Your task to perform on an android device: toggle pop-ups in chrome Image 0: 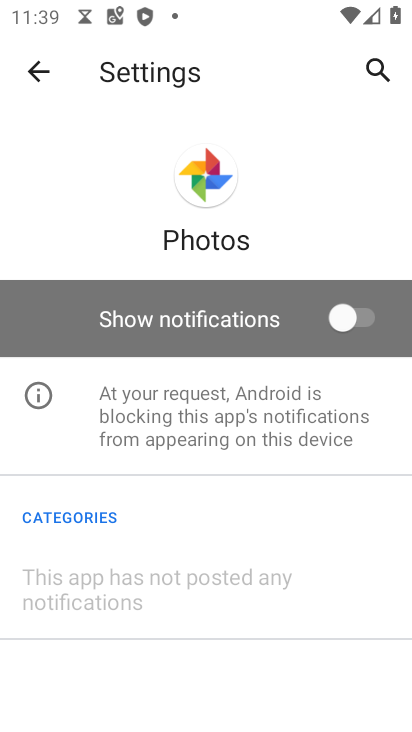
Step 0: press home button
Your task to perform on an android device: toggle pop-ups in chrome Image 1: 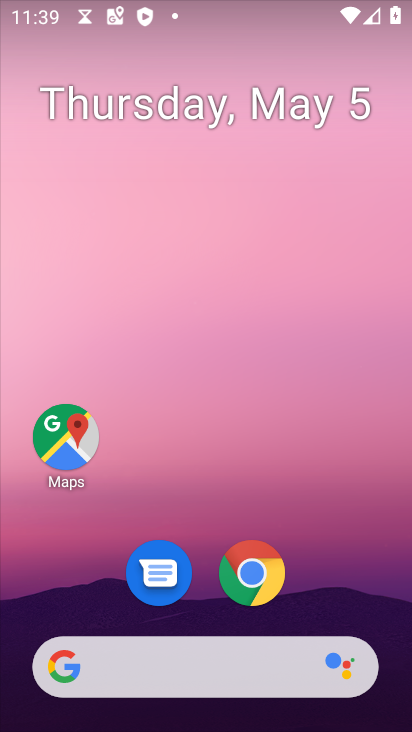
Step 1: click (323, 188)
Your task to perform on an android device: toggle pop-ups in chrome Image 2: 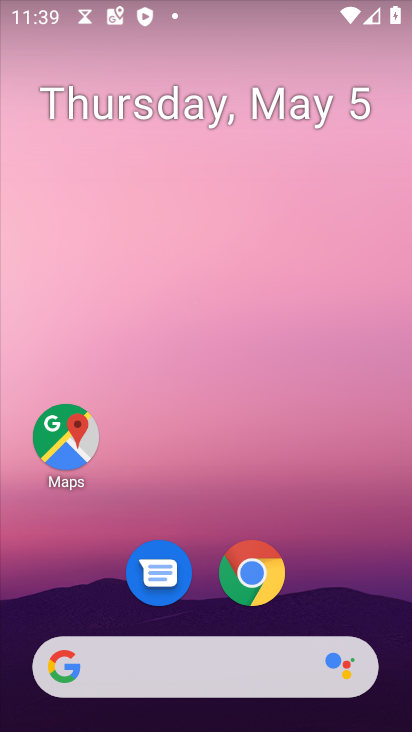
Step 2: drag from (317, 585) to (300, 185)
Your task to perform on an android device: toggle pop-ups in chrome Image 3: 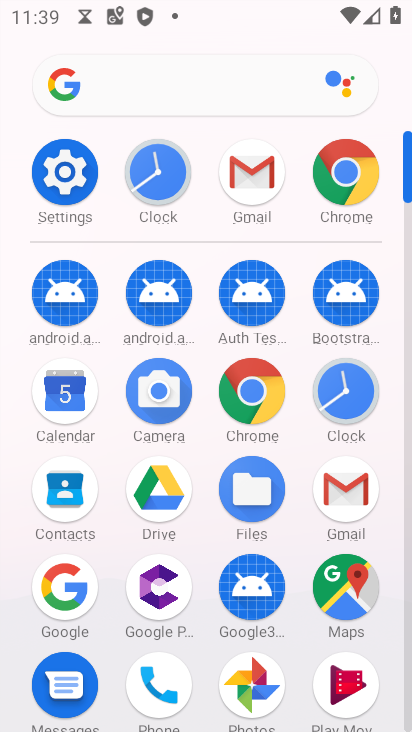
Step 3: click (256, 388)
Your task to perform on an android device: toggle pop-ups in chrome Image 4: 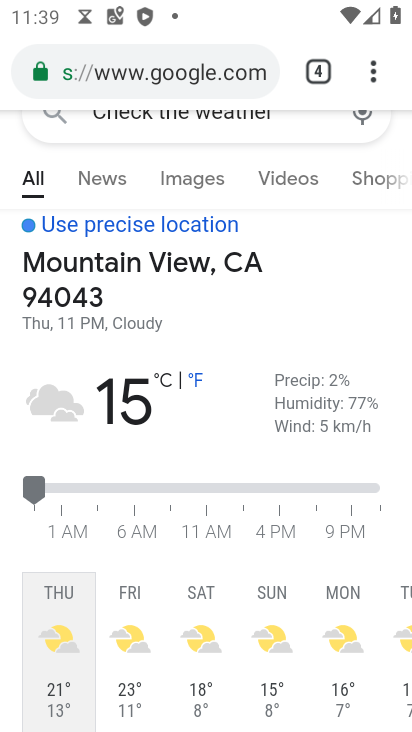
Step 4: click (360, 75)
Your task to perform on an android device: toggle pop-ups in chrome Image 5: 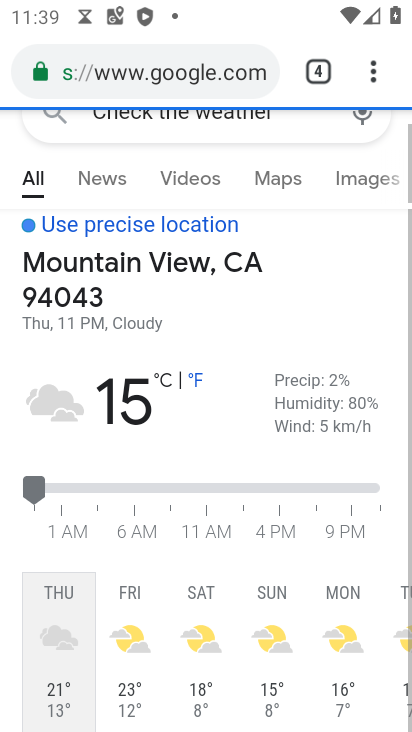
Step 5: click (364, 78)
Your task to perform on an android device: toggle pop-ups in chrome Image 6: 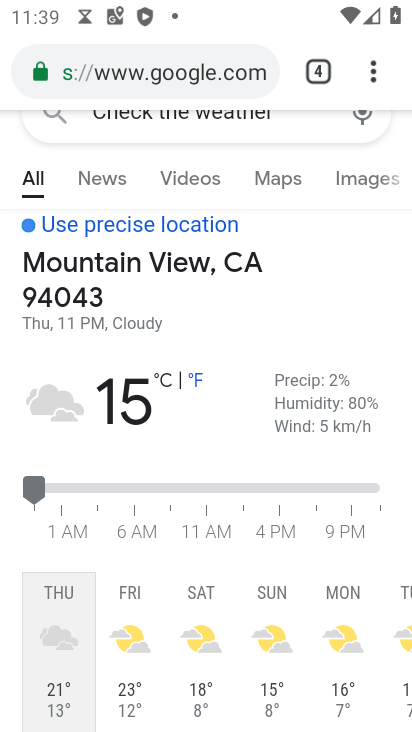
Step 6: click (373, 86)
Your task to perform on an android device: toggle pop-ups in chrome Image 7: 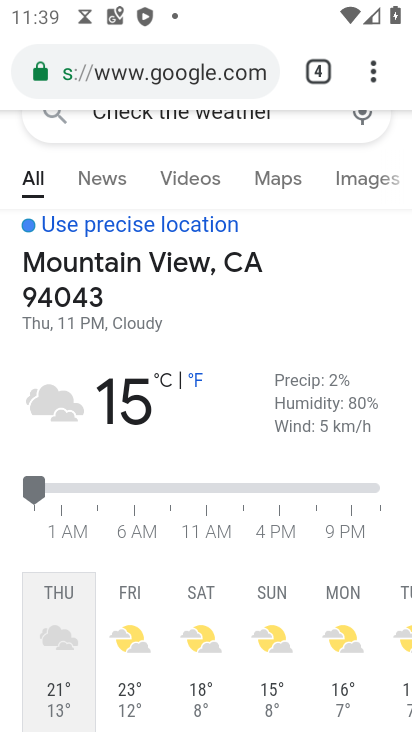
Step 7: click (357, 77)
Your task to perform on an android device: toggle pop-ups in chrome Image 8: 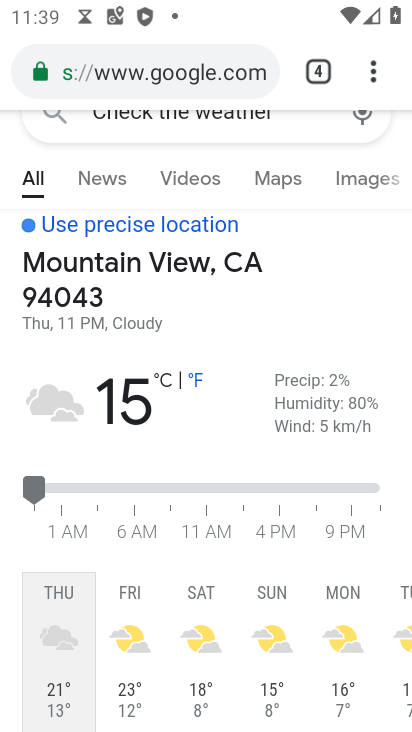
Step 8: click (347, 69)
Your task to perform on an android device: toggle pop-ups in chrome Image 9: 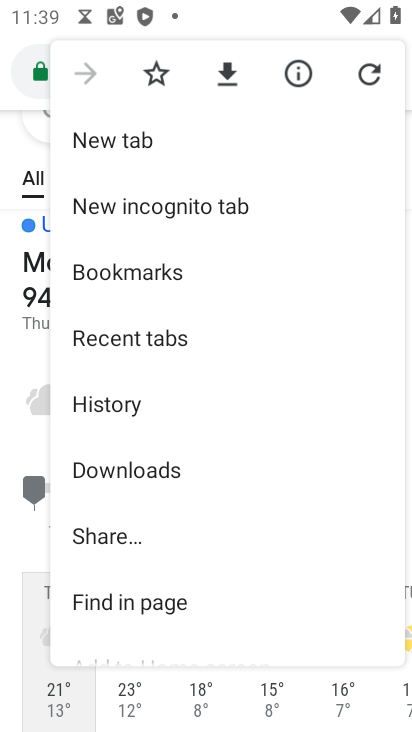
Step 9: drag from (256, 598) to (309, 288)
Your task to perform on an android device: toggle pop-ups in chrome Image 10: 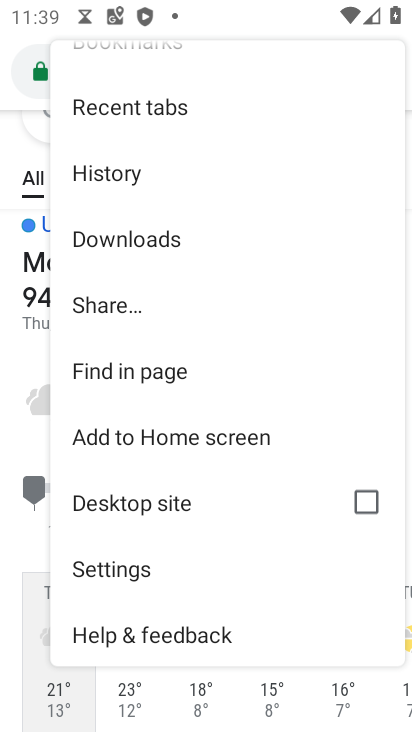
Step 10: click (156, 563)
Your task to perform on an android device: toggle pop-ups in chrome Image 11: 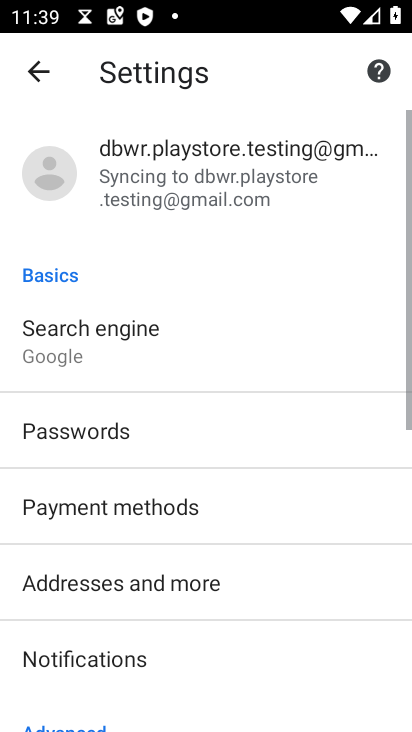
Step 11: drag from (208, 619) to (266, 268)
Your task to perform on an android device: toggle pop-ups in chrome Image 12: 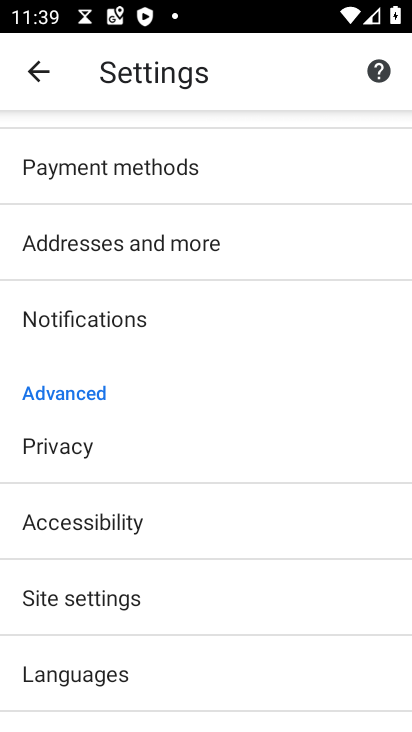
Step 12: click (117, 593)
Your task to perform on an android device: toggle pop-ups in chrome Image 13: 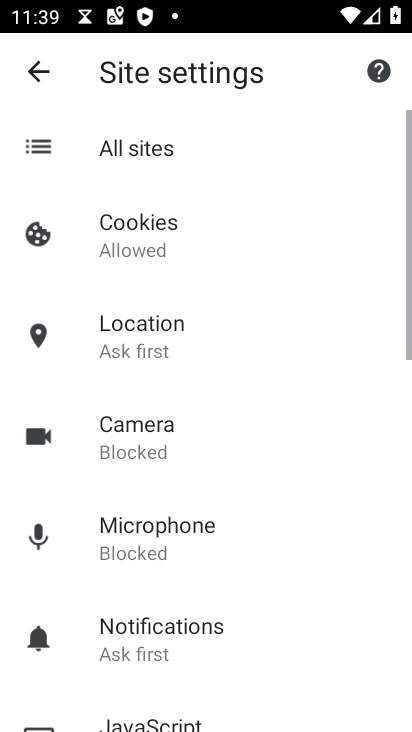
Step 13: drag from (206, 622) to (277, 282)
Your task to perform on an android device: toggle pop-ups in chrome Image 14: 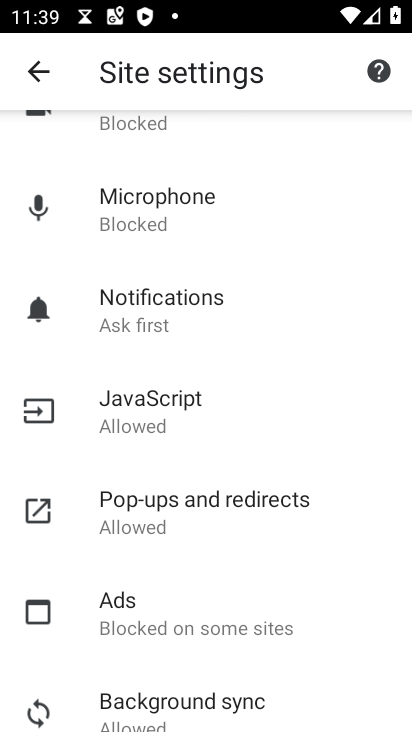
Step 14: click (205, 510)
Your task to perform on an android device: toggle pop-ups in chrome Image 15: 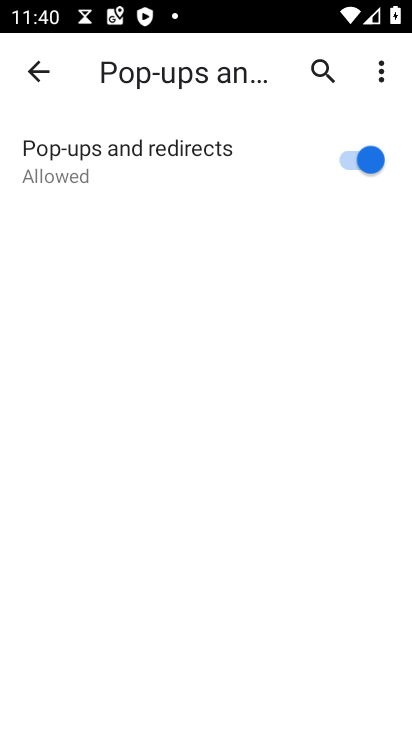
Step 15: click (343, 149)
Your task to perform on an android device: toggle pop-ups in chrome Image 16: 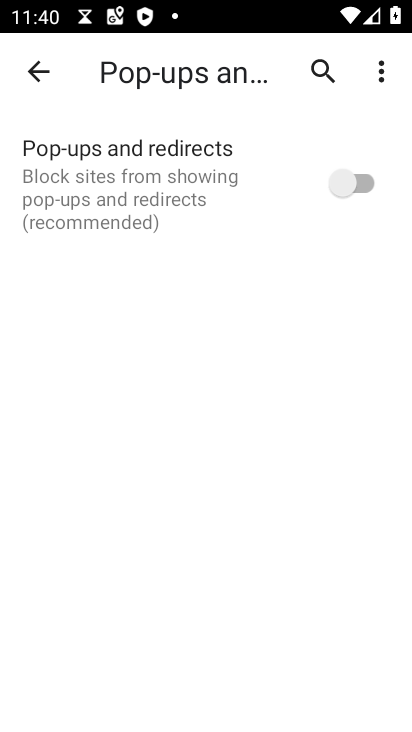
Step 16: task complete